Your task to perform on an android device: Search for "bose soundlink" on bestbuy.com, select the first entry, add it to the cart, then select checkout. Image 0: 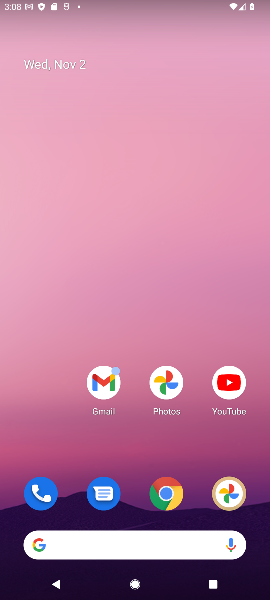
Step 0: click (168, 486)
Your task to perform on an android device: Search for "bose soundlink" on bestbuy.com, select the first entry, add it to the cart, then select checkout. Image 1: 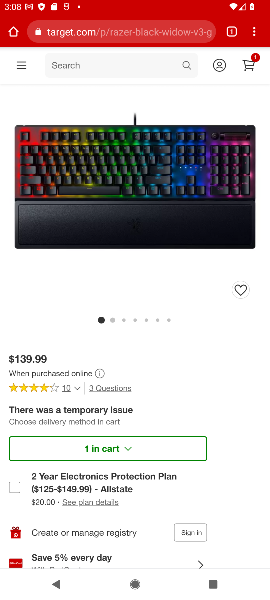
Step 1: click (186, 29)
Your task to perform on an android device: Search for "bose soundlink" on bestbuy.com, select the first entry, add it to the cart, then select checkout. Image 2: 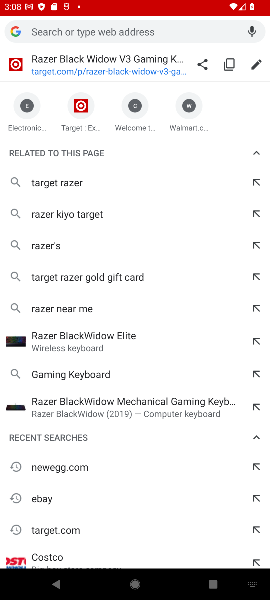
Step 2: type "bestbuy.com"
Your task to perform on an android device: Search for "bose soundlink" on bestbuy.com, select the first entry, add it to the cart, then select checkout. Image 3: 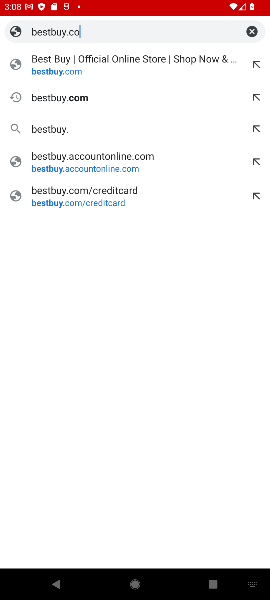
Step 3: press enter
Your task to perform on an android device: Search for "bose soundlink" on bestbuy.com, select the first entry, add it to the cart, then select checkout. Image 4: 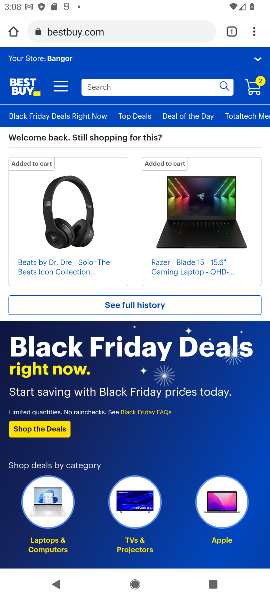
Step 4: click (154, 89)
Your task to perform on an android device: Search for "bose soundlink" on bestbuy.com, select the first entry, add it to the cart, then select checkout. Image 5: 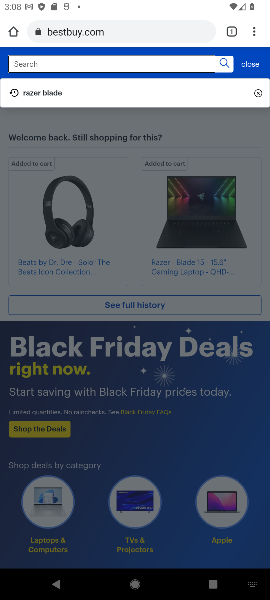
Step 5: type "bose soundlink"
Your task to perform on an android device: Search for "bose soundlink" on bestbuy.com, select the first entry, add it to the cart, then select checkout. Image 6: 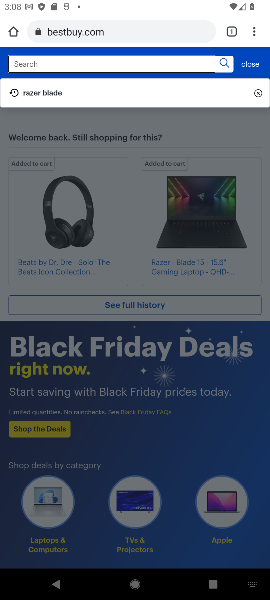
Step 6: press enter
Your task to perform on an android device: Search for "bose soundlink" on bestbuy.com, select the first entry, add it to the cart, then select checkout. Image 7: 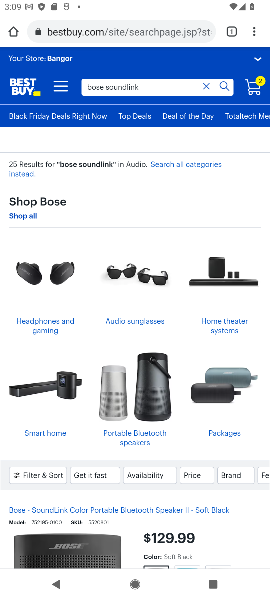
Step 7: drag from (179, 492) to (166, 335)
Your task to perform on an android device: Search for "bose soundlink" on bestbuy.com, select the first entry, add it to the cart, then select checkout. Image 8: 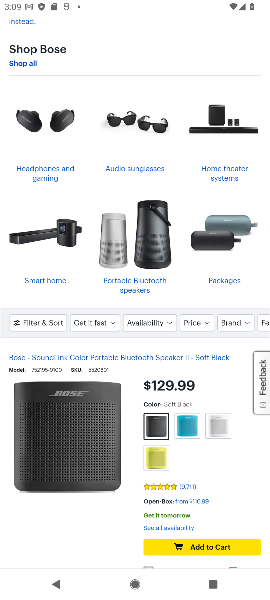
Step 8: drag from (106, 487) to (99, 181)
Your task to perform on an android device: Search for "bose soundlink" on bestbuy.com, select the first entry, add it to the cart, then select checkout. Image 9: 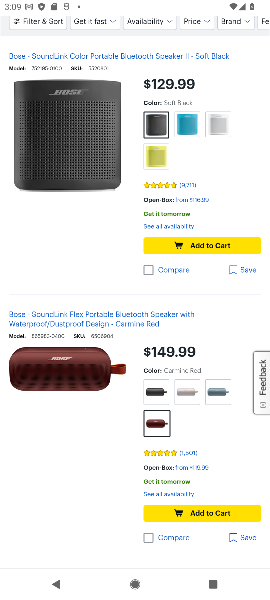
Step 9: click (63, 394)
Your task to perform on an android device: Search for "bose soundlink" on bestbuy.com, select the first entry, add it to the cart, then select checkout. Image 10: 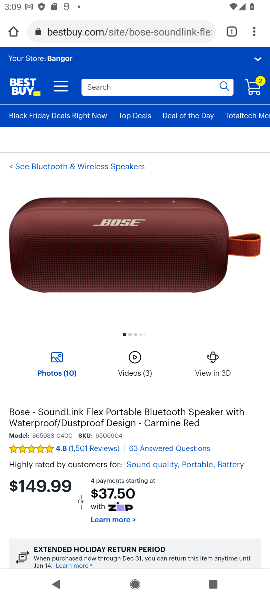
Step 10: drag from (164, 415) to (177, 74)
Your task to perform on an android device: Search for "bose soundlink" on bestbuy.com, select the first entry, add it to the cart, then select checkout. Image 11: 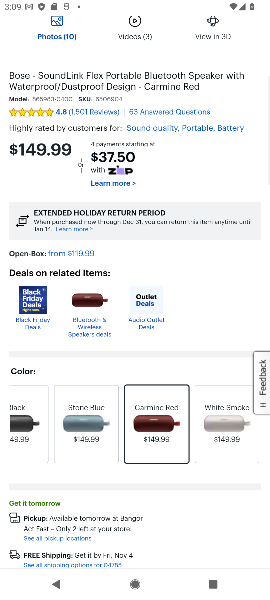
Step 11: drag from (226, 473) to (227, 110)
Your task to perform on an android device: Search for "bose soundlink" on bestbuy.com, select the first entry, add it to the cart, then select checkout. Image 12: 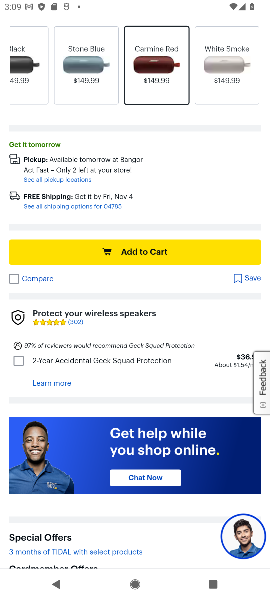
Step 12: click (148, 248)
Your task to perform on an android device: Search for "bose soundlink" on bestbuy.com, select the first entry, add it to the cart, then select checkout. Image 13: 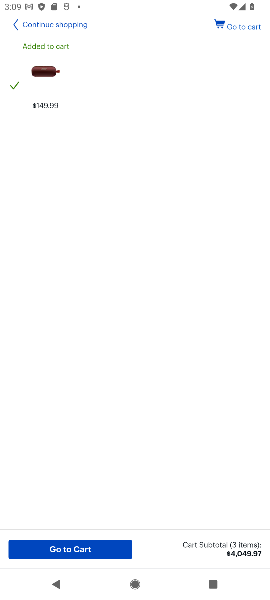
Step 13: click (78, 550)
Your task to perform on an android device: Search for "bose soundlink" on bestbuy.com, select the first entry, add it to the cart, then select checkout. Image 14: 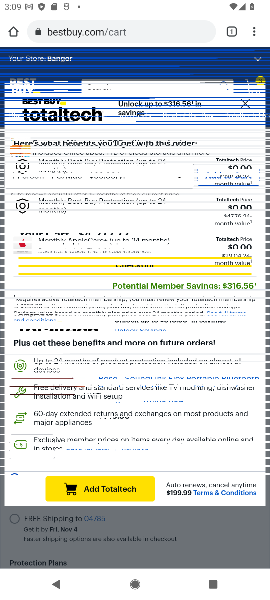
Step 14: click (245, 100)
Your task to perform on an android device: Search for "bose soundlink" on bestbuy.com, select the first entry, add it to the cart, then select checkout. Image 15: 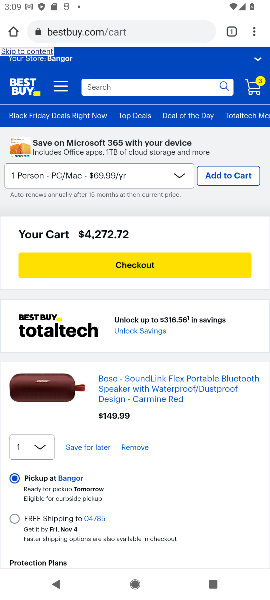
Step 15: click (149, 270)
Your task to perform on an android device: Search for "bose soundlink" on bestbuy.com, select the first entry, add it to the cart, then select checkout. Image 16: 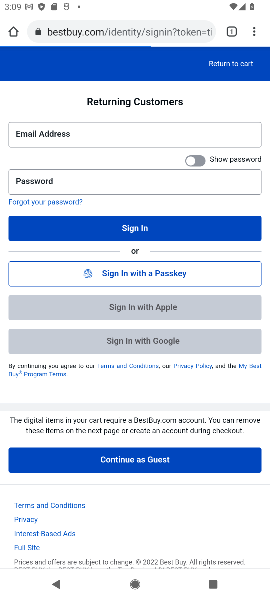
Step 16: task complete